Your task to perform on an android device: turn smart compose on in the gmail app Image 0: 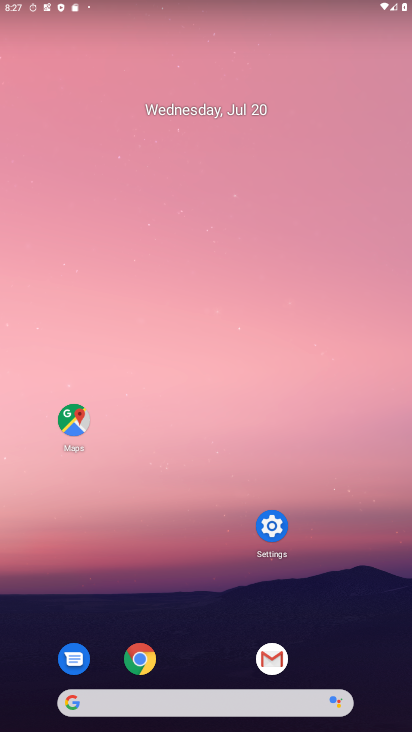
Step 0: click (255, 661)
Your task to perform on an android device: turn smart compose on in the gmail app Image 1: 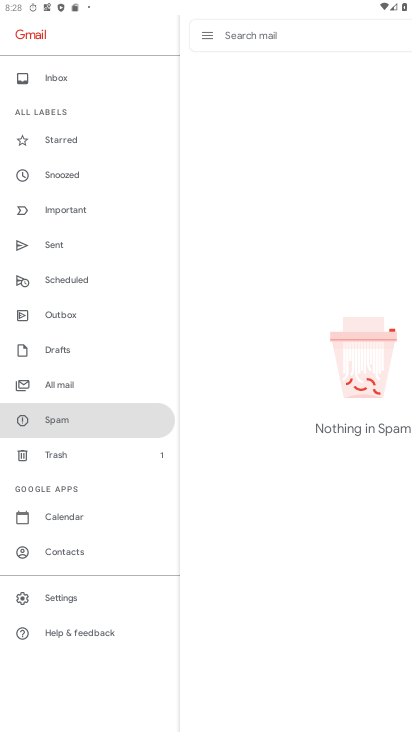
Step 1: click (69, 601)
Your task to perform on an android device: turn smart compose on in the gmail app Image 2: 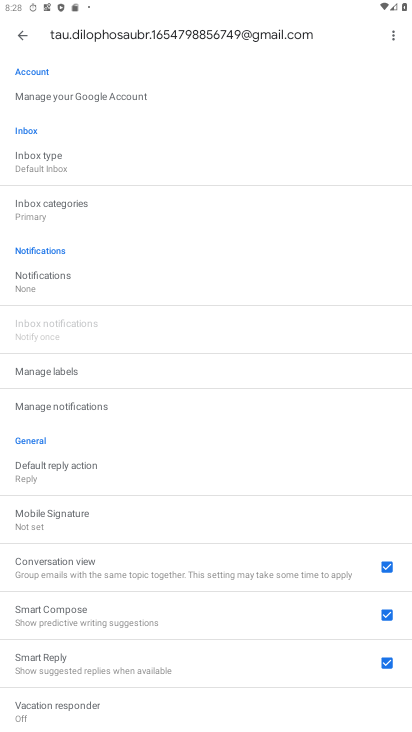
Step 2: click (215, 603)
Your task to perform on an android device: turn smart compose on in the gmail app Image 3: 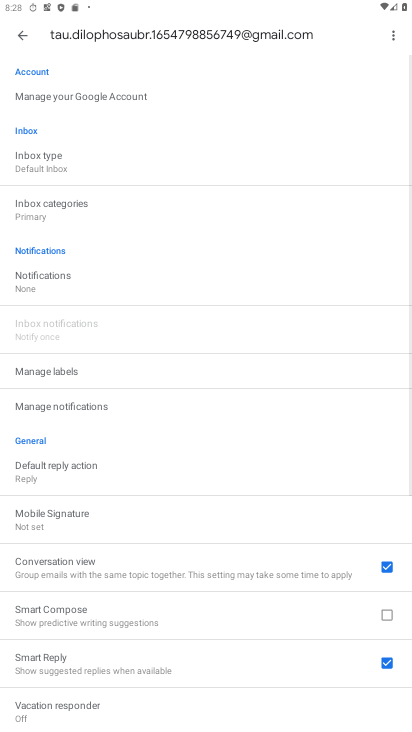
Step 3: click (220, 598)
Your task to perform on an android device: turn smart compose on in the gmail app Image 4: 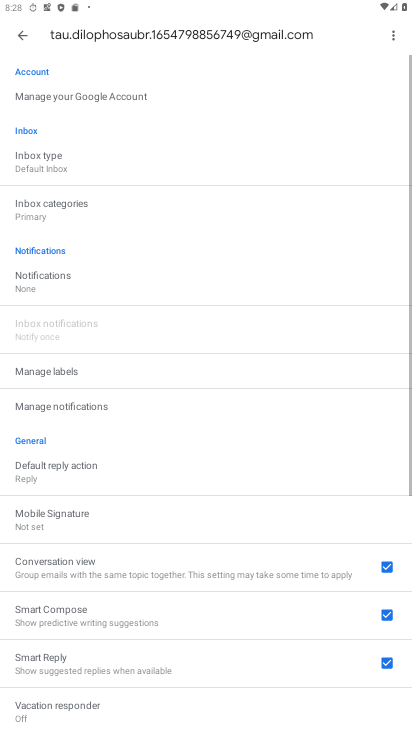
Step 4: task complete